Your task to perform on an android device: Open Google Image 0: 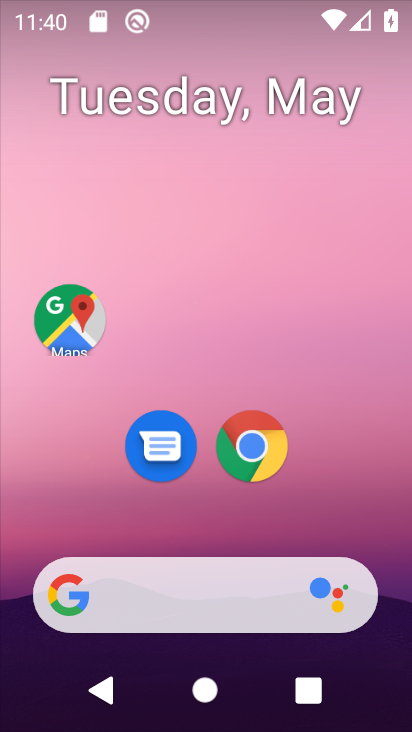
Step 0: press home button
Your task to perform on an android device: Open Google Image 1: 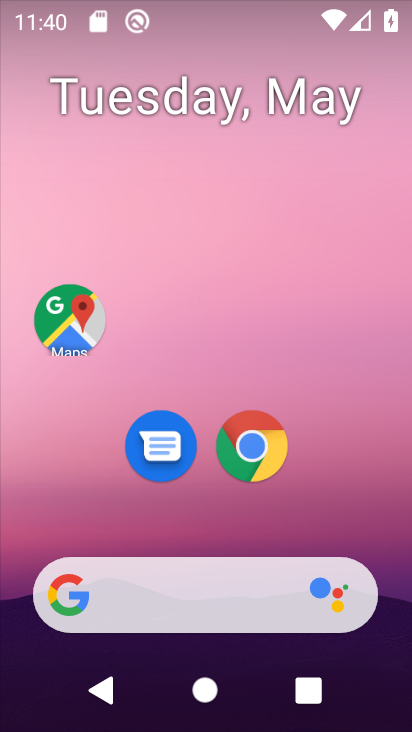
Step 1: drag from (344, 534) to (295, 43)
Your task to perform on an android device: Open Google Image 2: 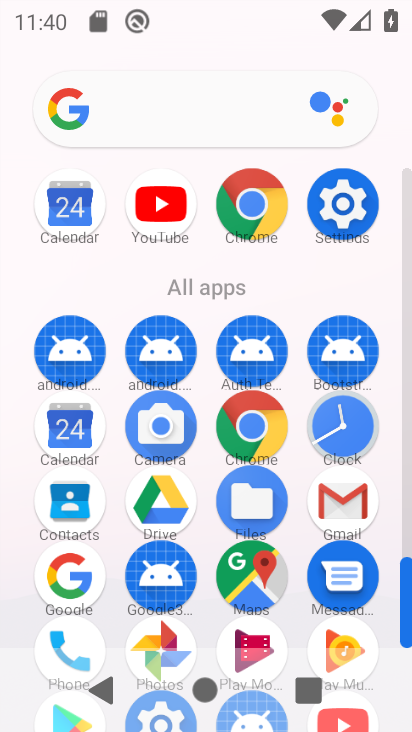
Step 2: drag from (406, 596) to (401, 678)
Your task to perform on an android device: Open Google Image 3: 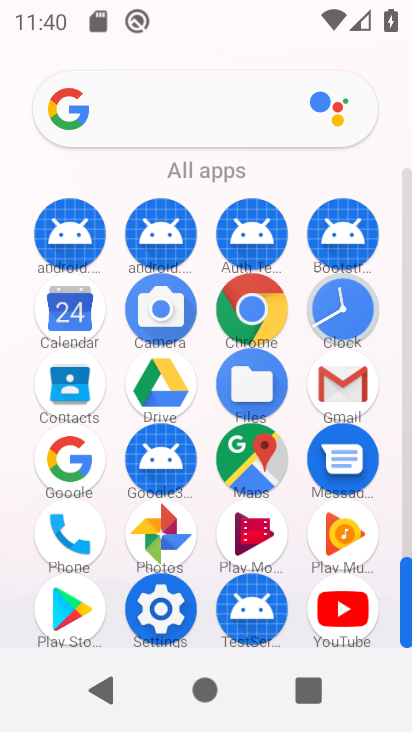
Step 3: click (83, 470)
Your task to perform on an android device: Open Google Image 4: 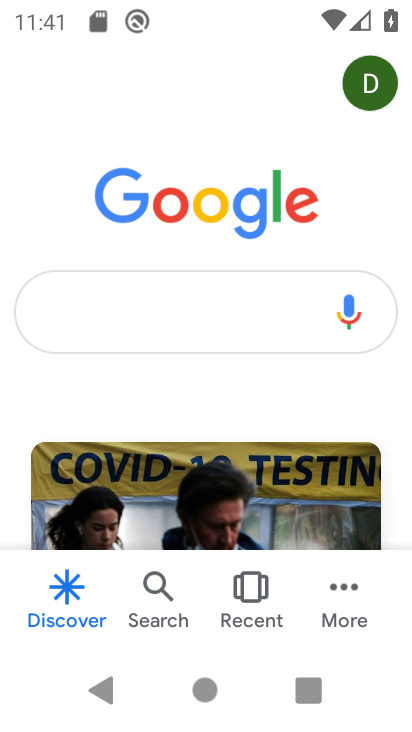
Step 4: task complete